Your task to perform on an android device: refresh tabs in the chrome app Image 0: 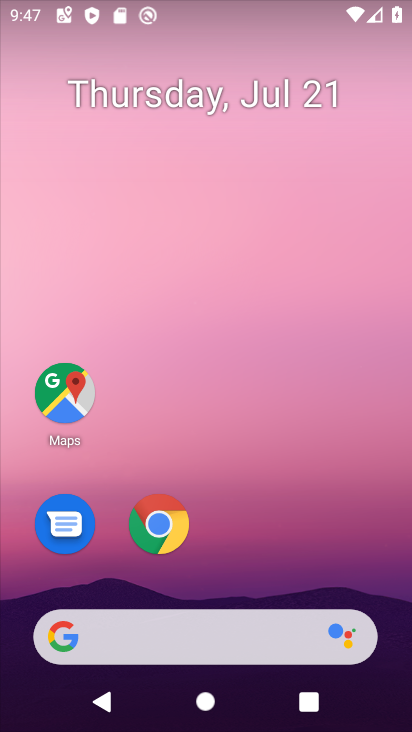
Step 0: press home button
Your task to perform on an android device: refresh tabs in the chrome app Image 1: 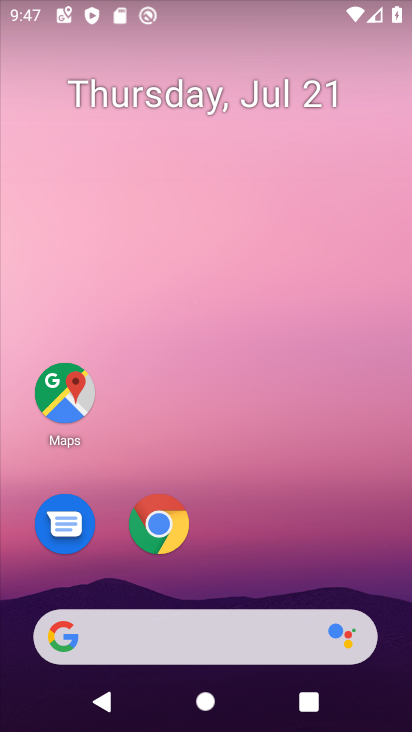
Step 1: click (162, 529)
Your task to perform on an android device: refresh tabs in the chrome app Image 2: 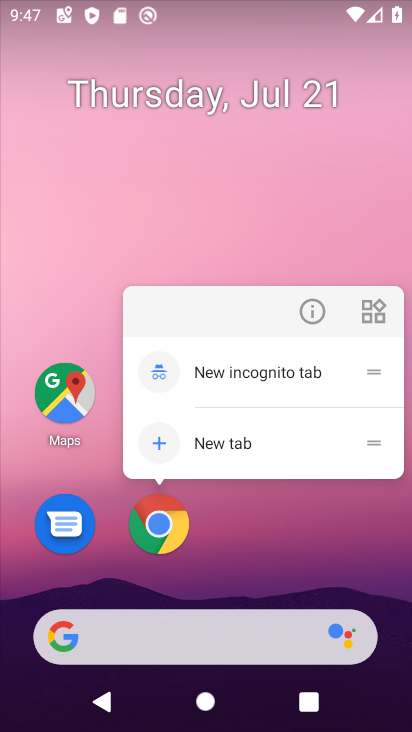
Step 2: click (162, 529)
Your task to perform on an android device: refresh tabs in the chrome app Image 3: 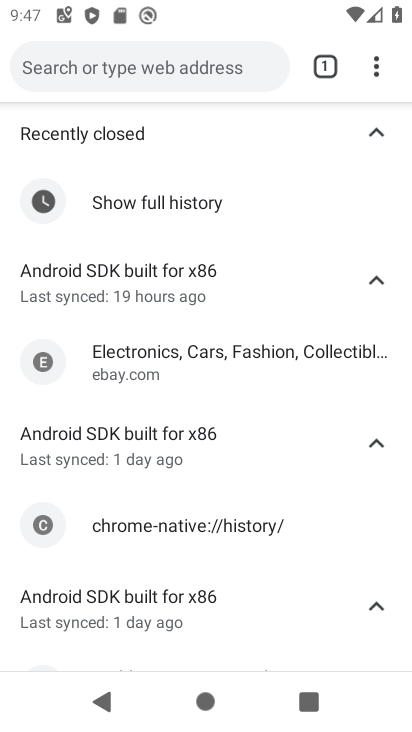
Step 3: click (375, 86)
Your task to perform on an android device: refresh tabs in the chrome app Image 4: 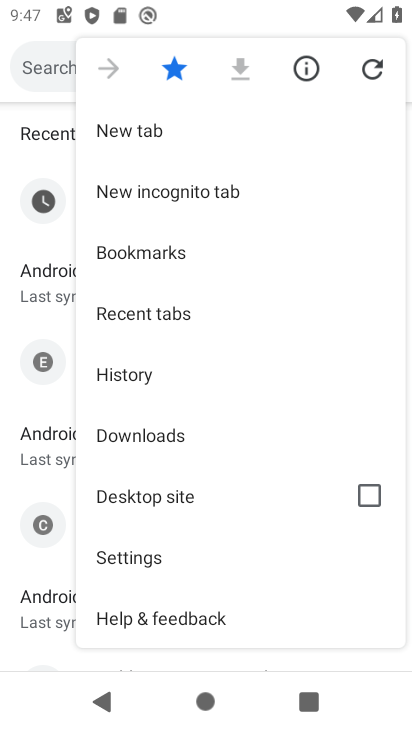
Step 4: click (370, 71)
Your task to perform on an android device: refresh tabs in the chrome app Image 5: 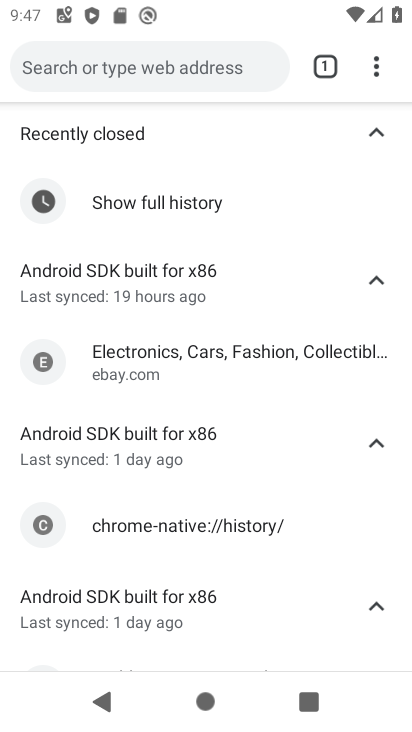
Step 5: task complete